Your task to perform on an android device: turn on javascript in the chrome app Image 0: 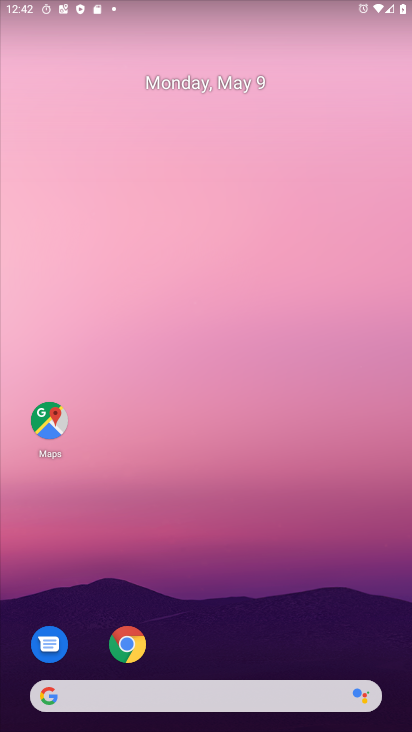
Step 0: drag from (283, 677) to (185, 283)
Your task to perform on an android device: turn on javascript in the chrome app Image 1: 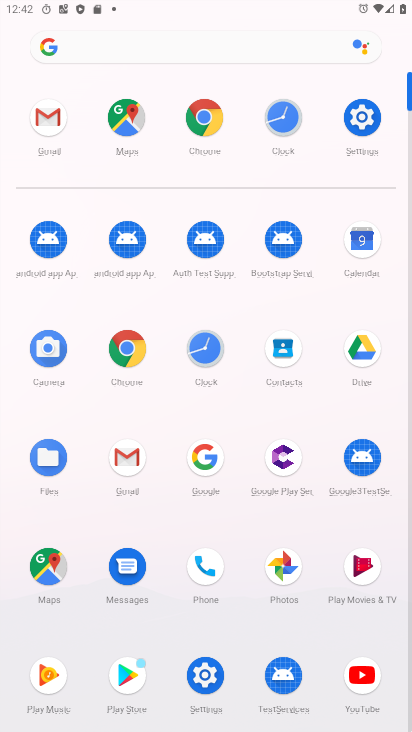
Step 1: click (194, 113)
Your task to perform on an android device: turn on javascript in the chrome app Image 2: 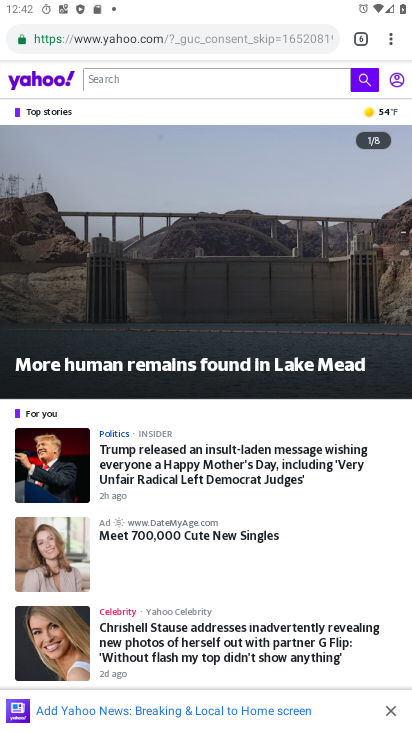
Step 2: drag from (390, 39) to (251, 437)
Your task to perform on an android device: turn on javascript in the chrome app Image 3: 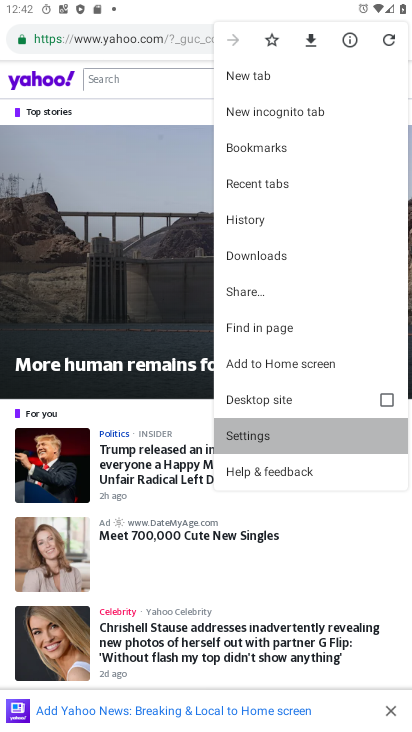
Step 3: click (251, 437)
Your task to perform on an android device: turn on javascript in the chrome app Image 4: 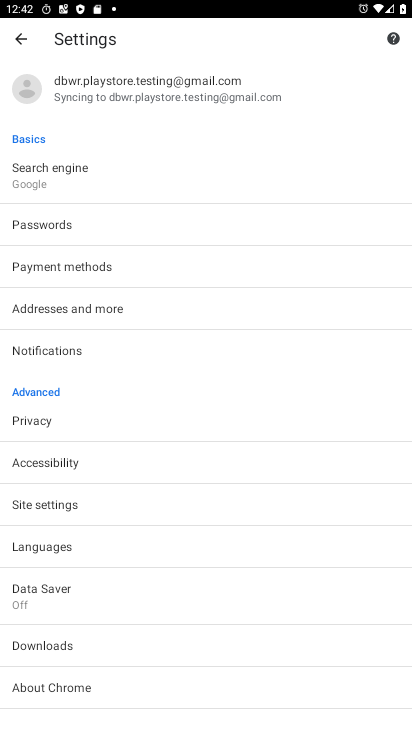
Step 4: click (38, 503)
Your task to perform on an android device: turn on javascript in the chrome app Image 5: 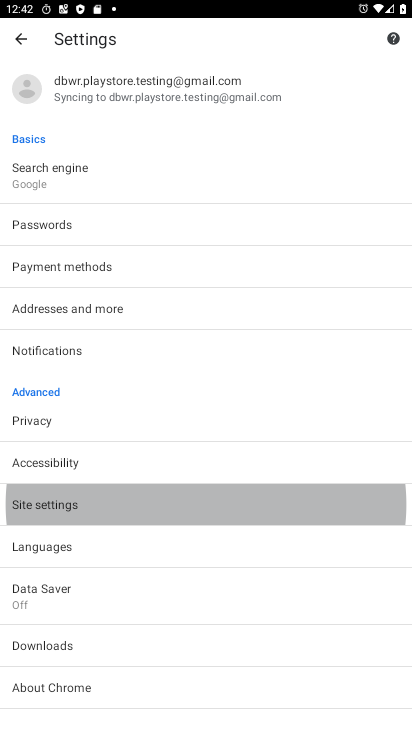
Step 5: click (38, 503)
Your task to perform on an android device: turn on javascript in the chrome app Image 6: 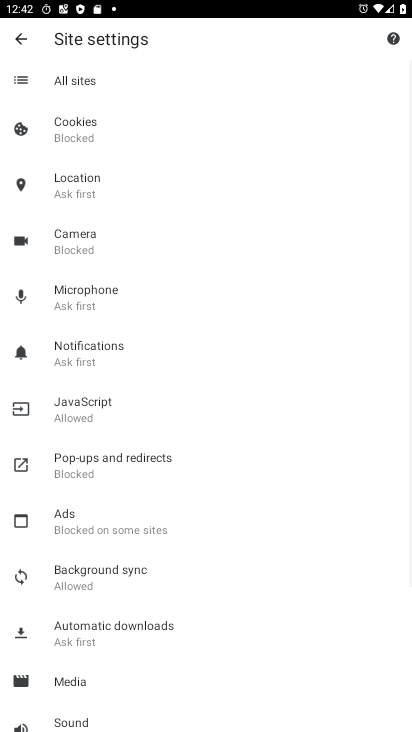
Step 6: click (77, 403)
Your task to perform on an android device: turn on javascript in the chrome app Image 7: 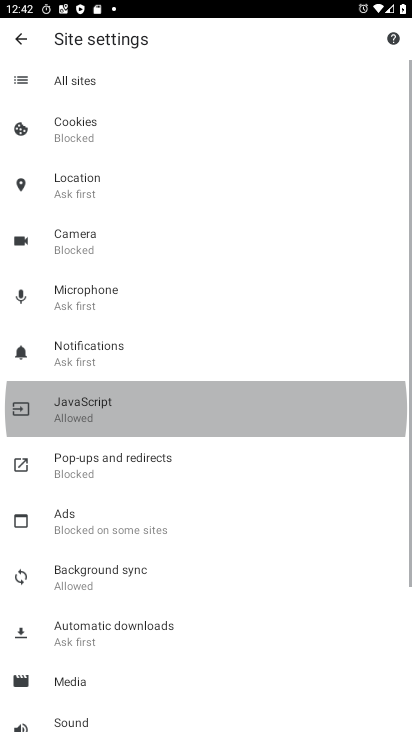
Step 7: click (77, 403)
Your task to perform on an android device: turn on javascript in the chrome app Image 8: 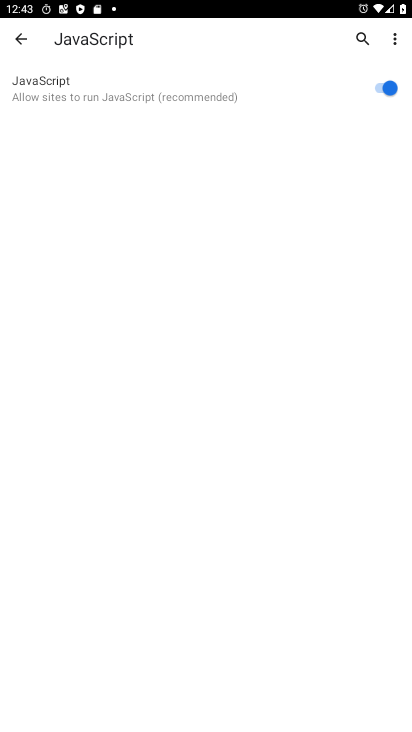
Step 8: task complete